Your task to perform on an android device: Search for vegetarian restaurants on Maps Image 0: 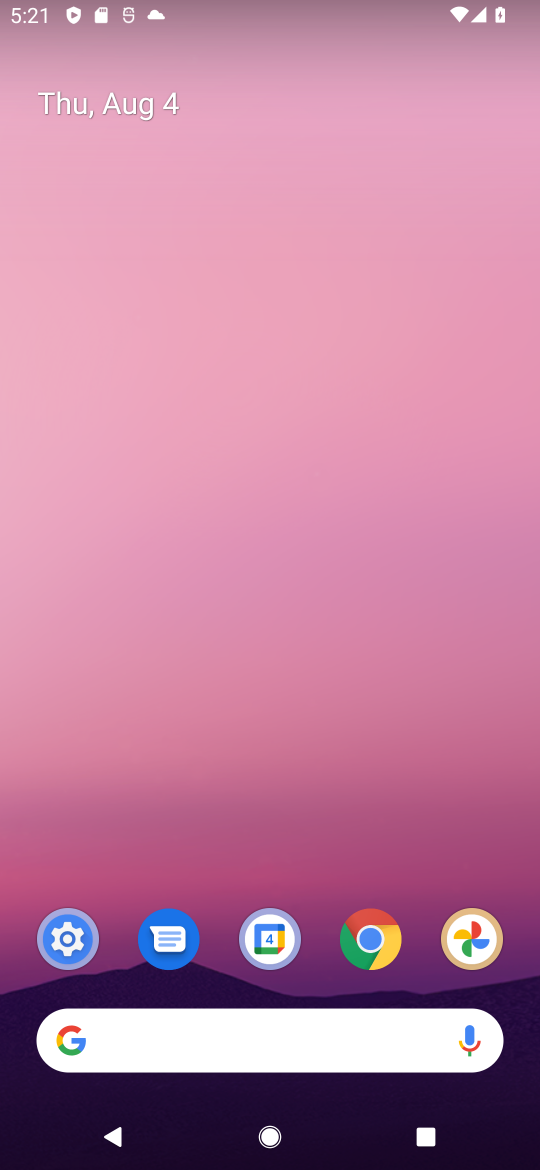
Step 0: drag from (307, 1016) to (408, 229)
Your task to perform on an android device: Search for vegetarian restaurants on Maps Image 1: 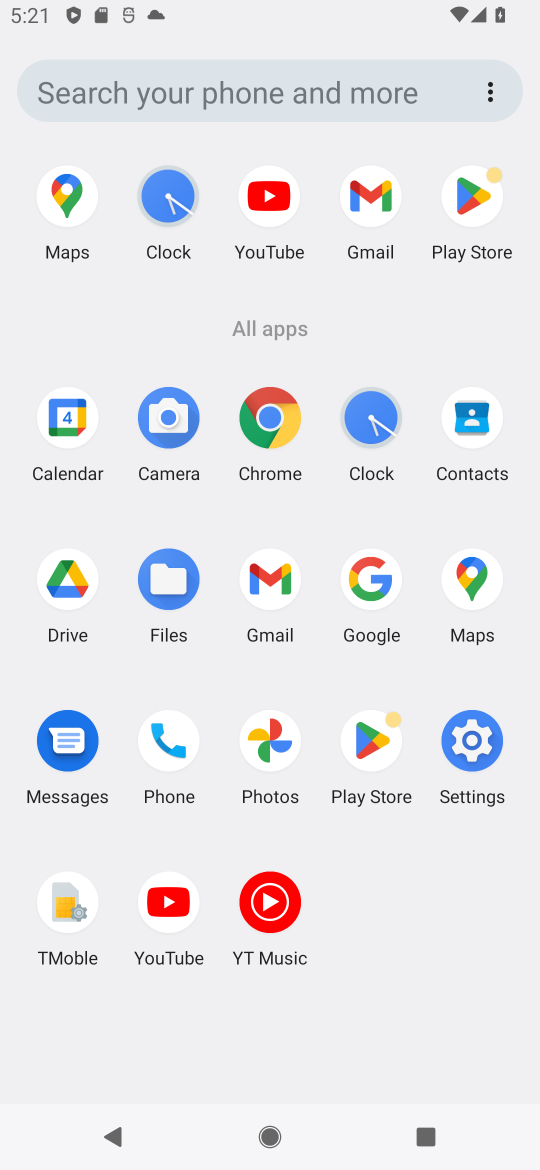
Step 1: click (74, 198)
Your task to perform on an android device: Search for vegetarian restaurants on Maps Image 2: 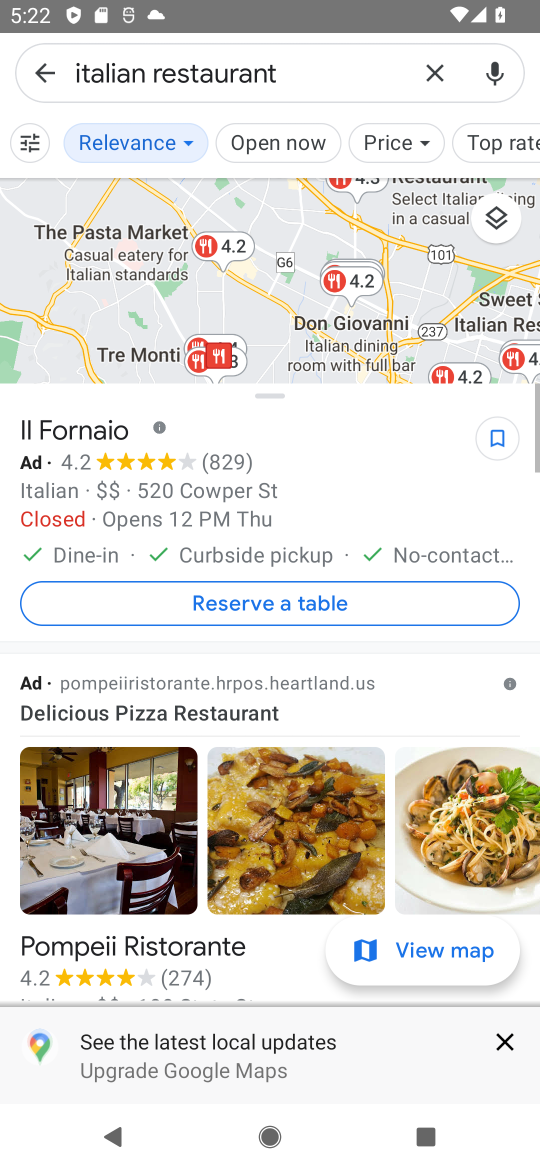
Step 2: drag from (442, 74) to (529, 74)
Your task to perform on an android device: Search for vegetarian restaurants on Maps Image 3: 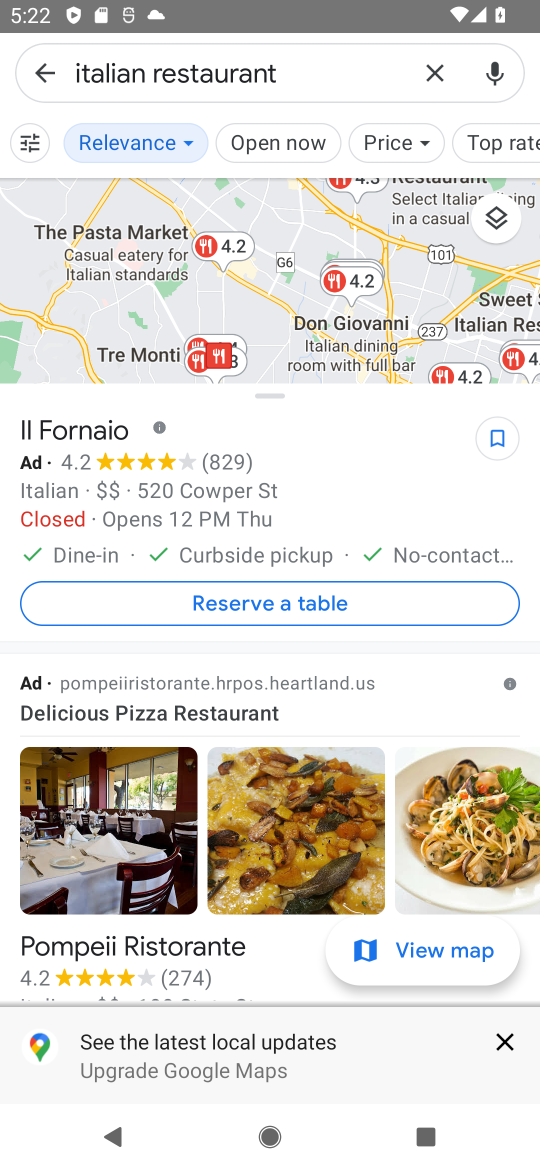
Step 3: click (431, 80)
Your task to perform on an android device: Search for vegetarian restaurants on Maps Image 4: 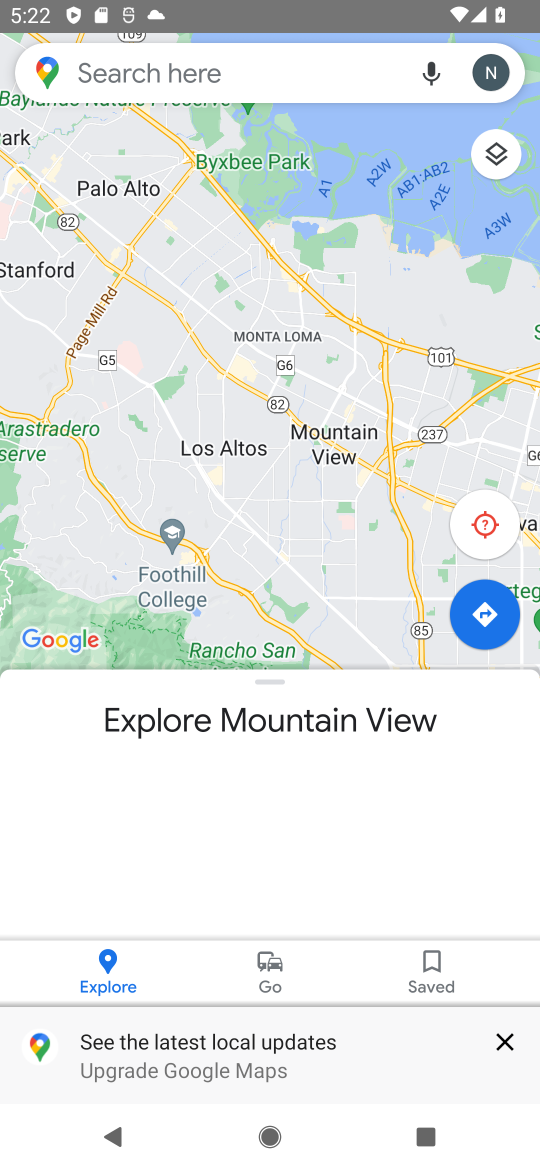
Step 4: click (319, 69)
Your task to perform on an android device: Search for vegetarian restaurants on Maps Image 5: 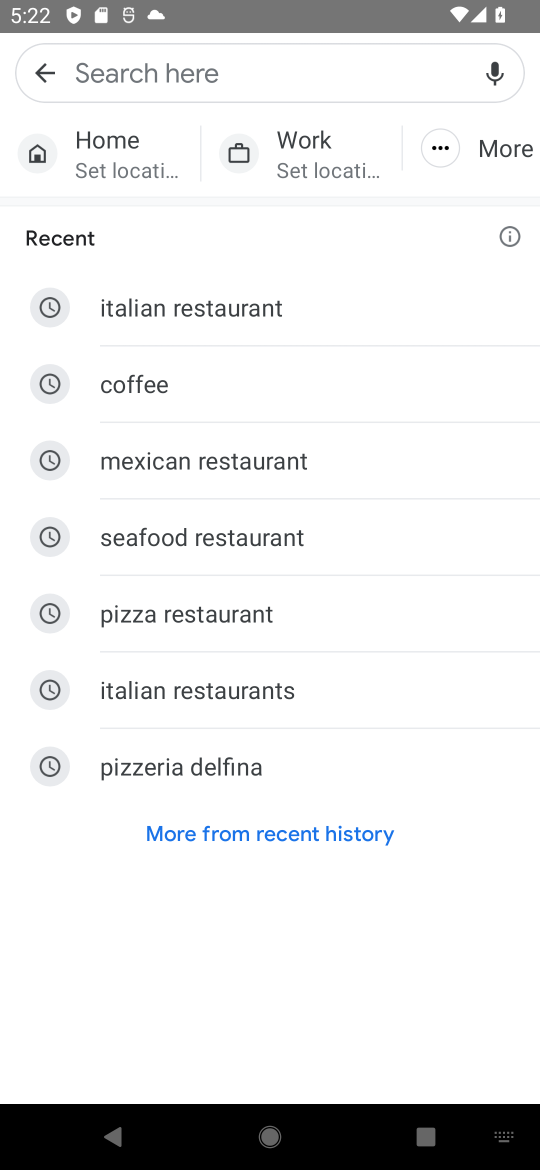
Step 5: type "vegetarian restaurants"
Your task to perform on an android device: Search for vegetarian restaurants on Maps Image 6: 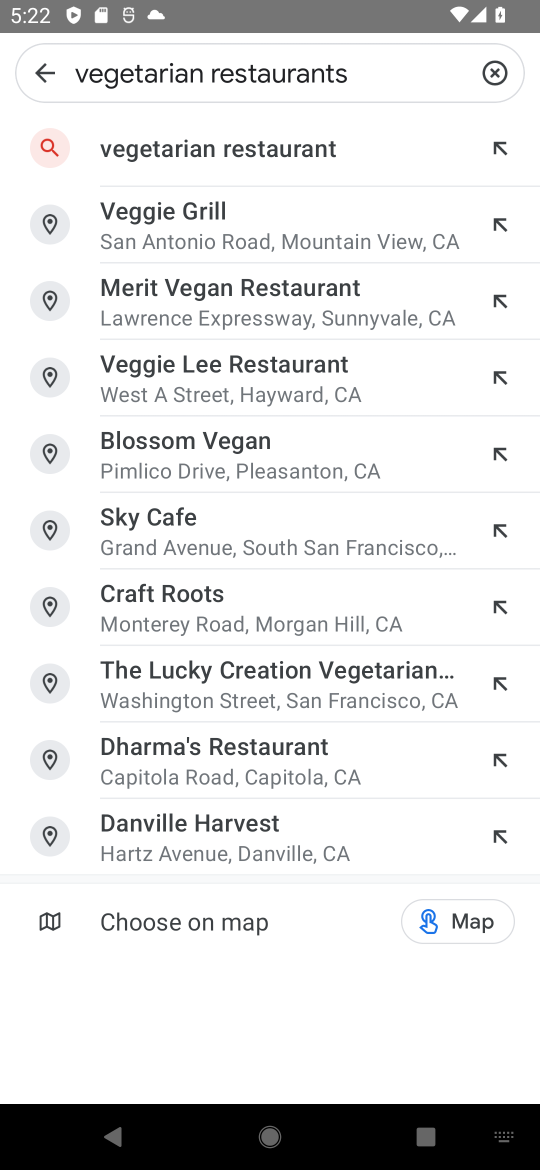
Step 6: click (202, 163)
Your task to perform on an android device: Search for vegetarian restaurants on Maps Image 7: 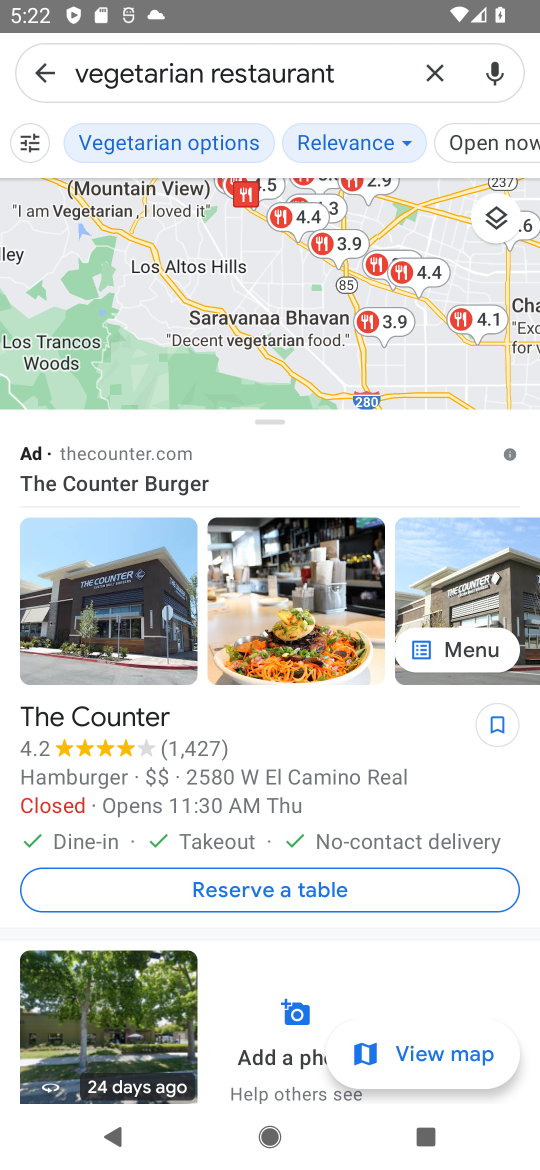
Step 7: task complete